Your task to perform on an android device: Search for "razer huntsman" on costco, select the first entry, and add it to the cart. Image 0: 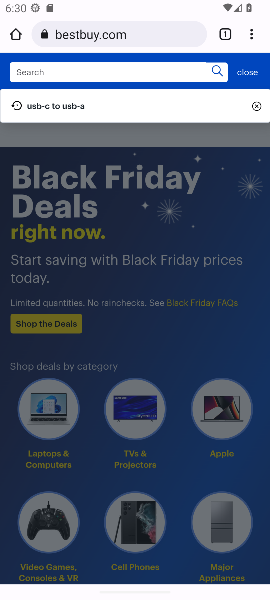
Step 0: click (152, 71)
Your task to perform on an android device: Search for "razer huntsman" on costco, select the first entry, and add it to the cart. Image 1: 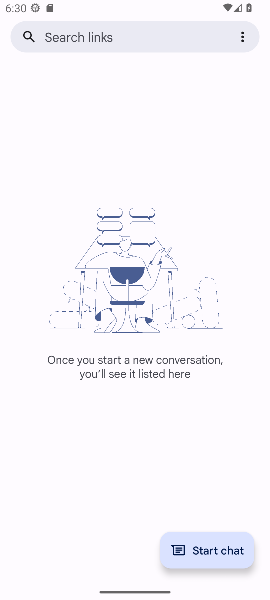
Step 1: type "razer"
Your task to perform on an android device: Search for "razer huntsman" on costco, select the first entry, and add it to the cart. Image 2: 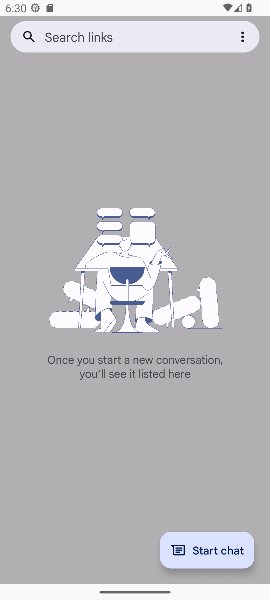
Step 2: press home button
Your task to perform on an android device: Search for "razer huntsman" on costco, select the first entry, and add it to the cart. Image 3: 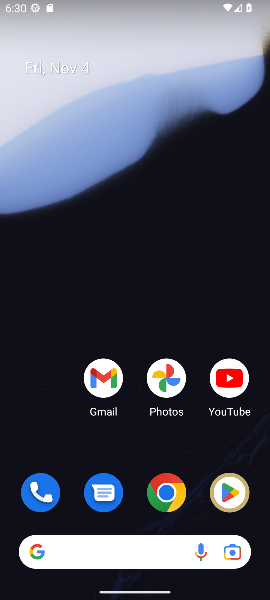
Step 3: drag from (142, 450) to (173, 40)
Your task to perform on an android device: Search for "razer huntsman" on costco, select the first entry, and add it to the cart. Image 4: 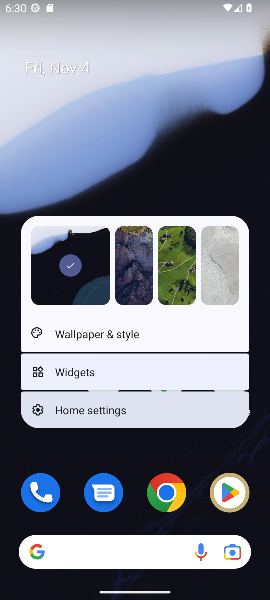
Step 4: click (150, 112)
Your task to perform on an android device: Search for "razer huntsman" on costco, select the first entry, and add it to the cart. Image 5: 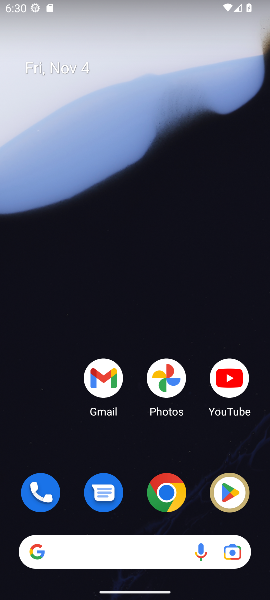
Step 5: drag from (135, 460) to (151, 44)
Your task to perform on an android device: Search for "razer huntsman" on costco, select the first entry, and add it to the cart. Image 6: 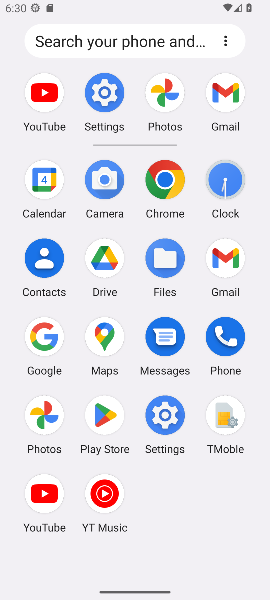
Step 6: click (164, 176)
Your task to perform on an android device: Search for "razer huntsman" on costco, select the first entry, and add it to the cart. Image 7: 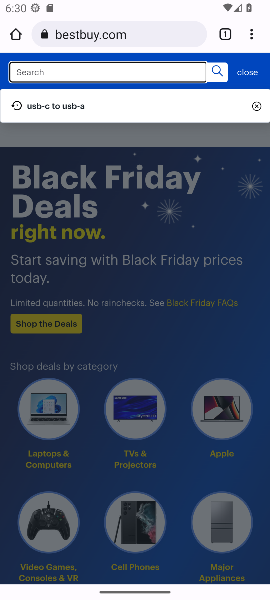
Step 7: click (154, 38)
Your task to perform on an android device: Search for "razer huntsman" on costco, select the first entry, and add it to the cart. Image 8: 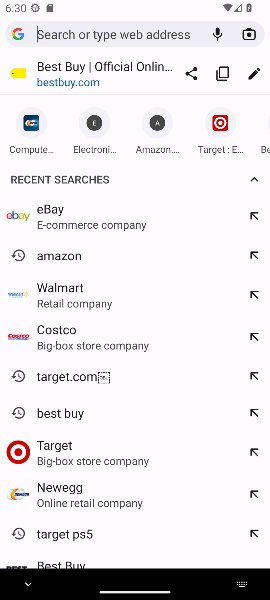
Step 8: type "costco.com"
Your task to perform on an android device: Search for "razer huntsman" on costco, select the first entry, and add it to the cart. Image 9: 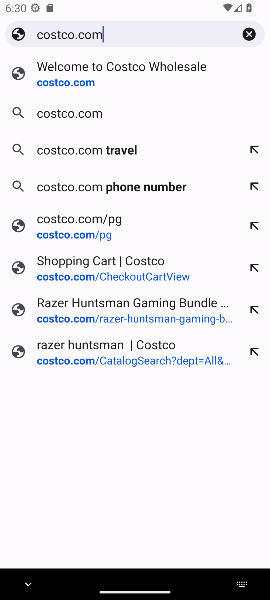
Step 9: press enter
Your task to perform on an android device: Search for "razer huntsman" on costco, select the first entry, and add it to the cart. Image 10: 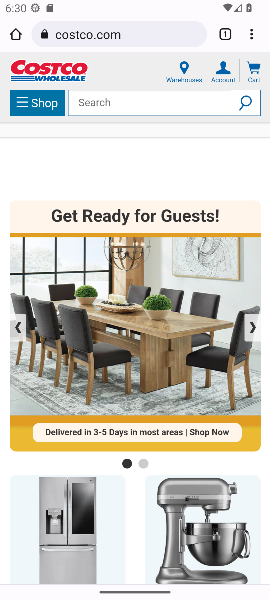
Step 10: click (162, 102)
Your task to perform on an android device: Search for "razer huntsman" on costco, select the first entry, and add it to the cart. Image 11: 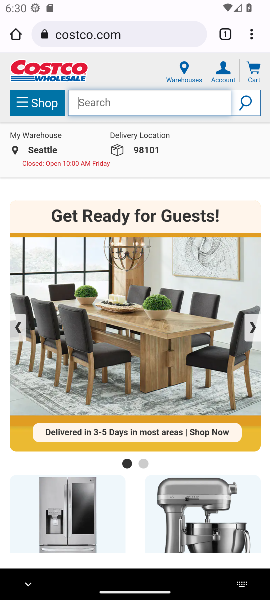
Step 11: type "razer huntsman"
Your task to perform on an android device: Search for "razer huntsman" on costco, select the first entry, and add it to the cart. Image 12: 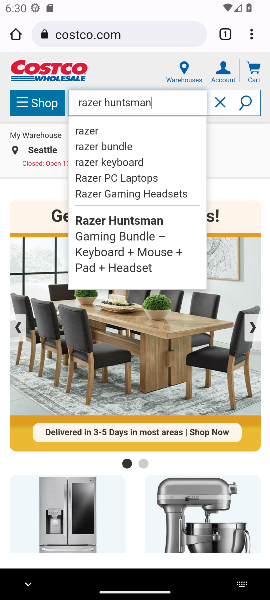
Step 12: press enter
Your task to perform on an android device: Search for "razer huntsman" on costco, select the first entry, and add it to the cart. Image 13: 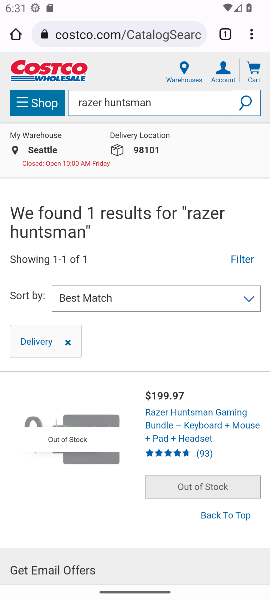
Step 13: click (189, 417)
Your task to perform on an android device: Search for "razer huntsman" on costco, select the first entry, and add it to the cart. Image 14: 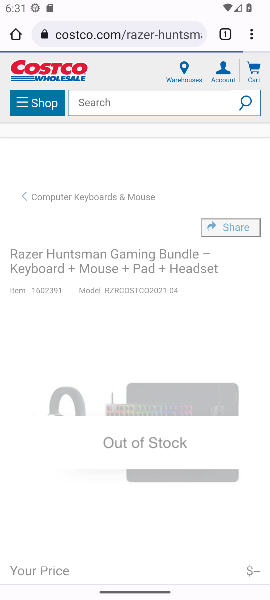
Step 14: task complete